Your task to perform on an android device: open a new tab in the chrome app Image 0: 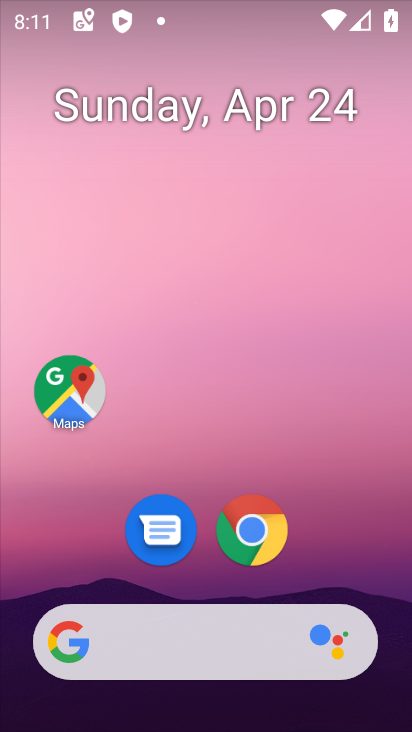
Step 0: click (250, 530)
Your task to perform on an android device: open a new tab in the chrome app Image 1: 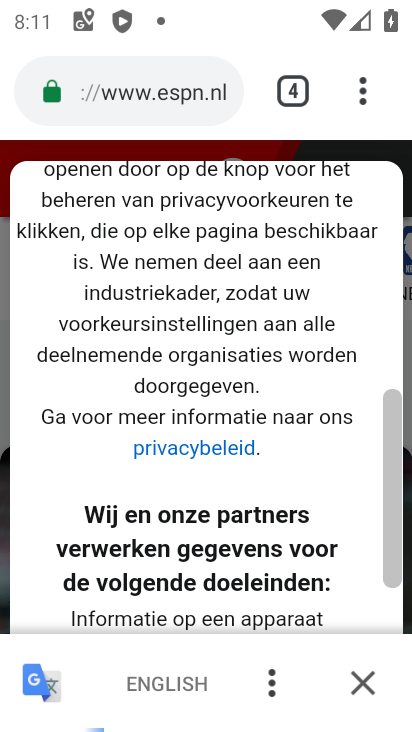
Step 1: click (362, 89)
Your task to perform on an android device: open a new tab in the chrome app Image 2: 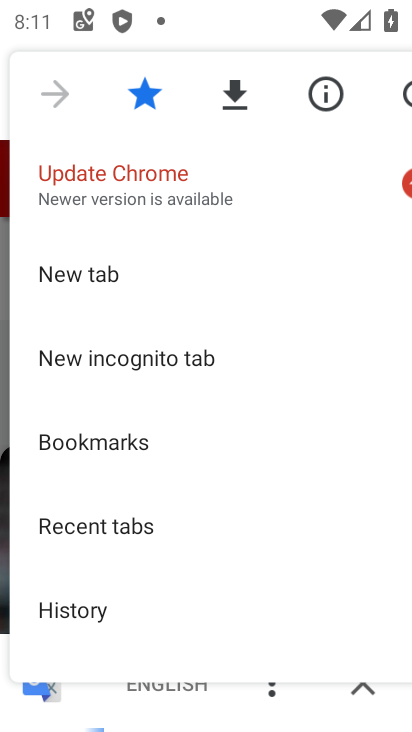
Step 2: click (157, 276)
Your task to perform on an android device: open a new tab in the chrome app Image 3: 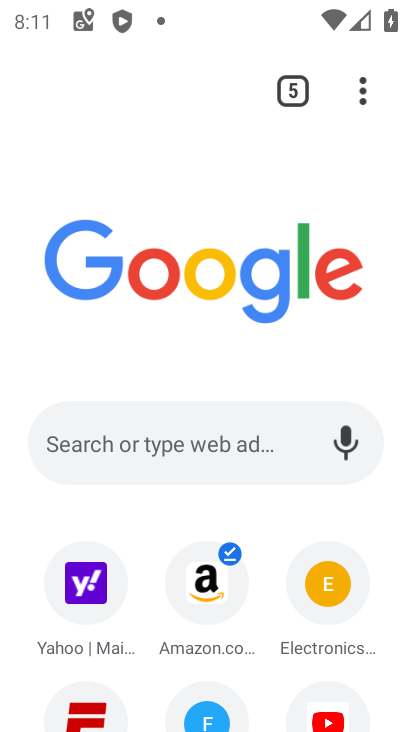
Step 3: task complete